Your task to perform on an android device: add a contact in the contacts app Image 0: 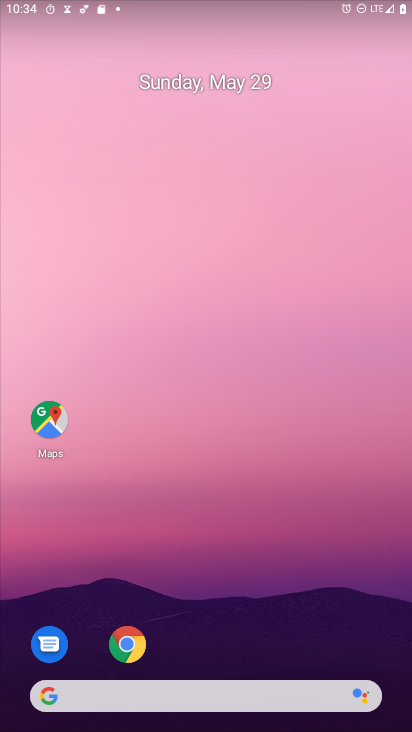
Step 0: drag from (116, 726) to (128, 23)
Your task to perform on an android device: add a contact in the contacts app Image 1: 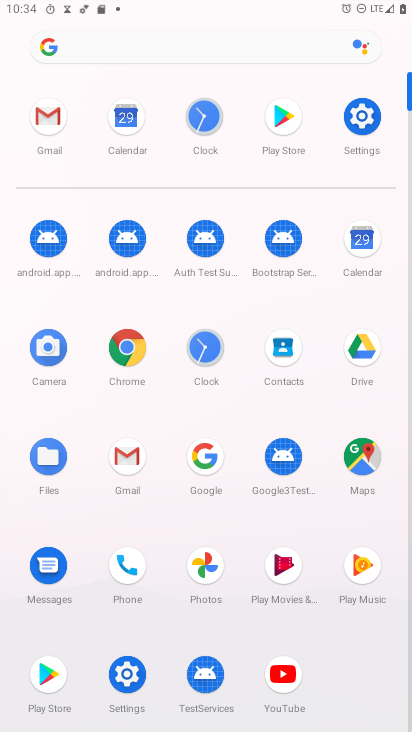
Step 1: click (278, 349)
Your task to perform on an android device: add a contact in the contacts app Image 2: 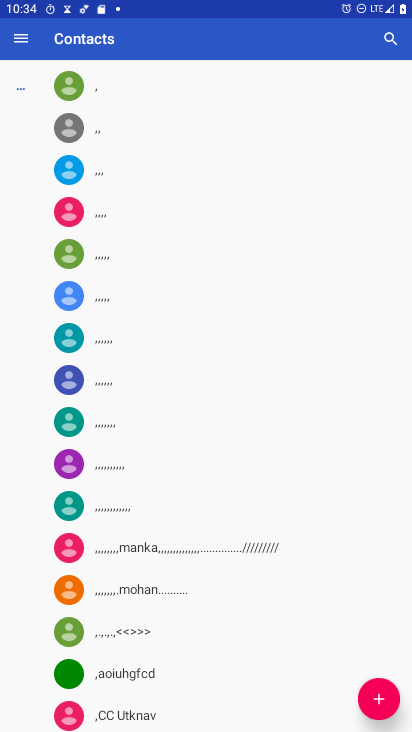
Step 2: click (370, 702)
Your task to perform on an android device: add a contact in the contacts app Image 3: 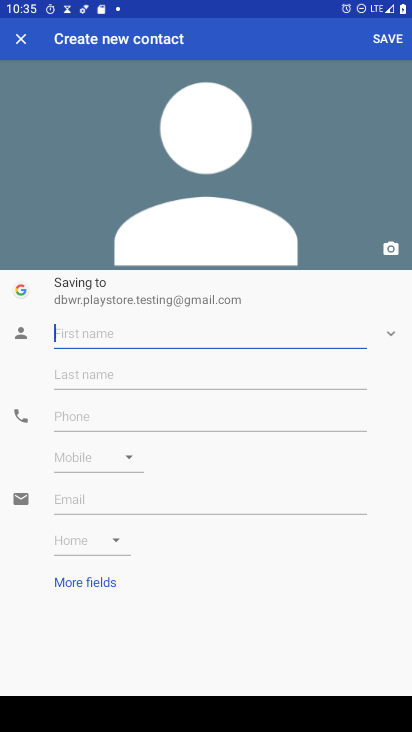
Step 3: type "hajhdj"
Your task to perform on an android device: add a contact in the contacts app Image 4: 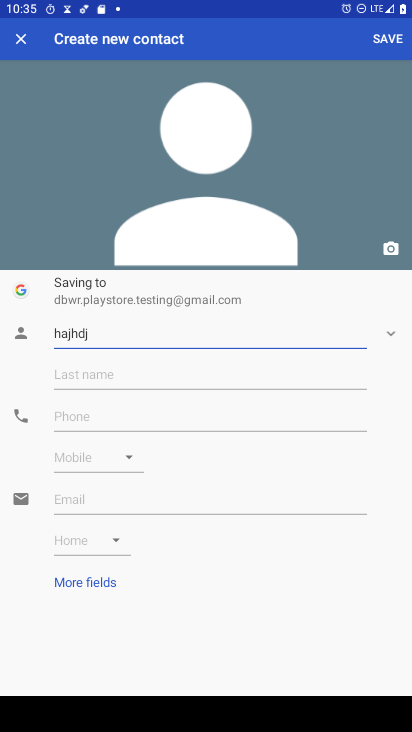
Step 4: click (101, 423)
Your task to perform on an android device: add a contact in the contacts app Image 5: 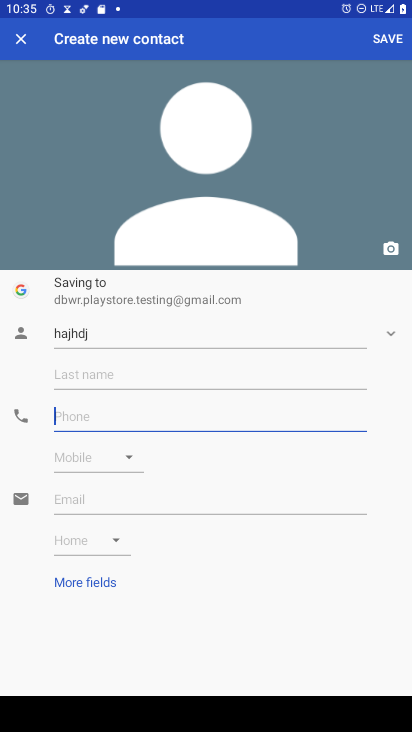
Step 5: type "98716253540"
Your task to perform on an android device: add a contact in the contacts app Image 6: 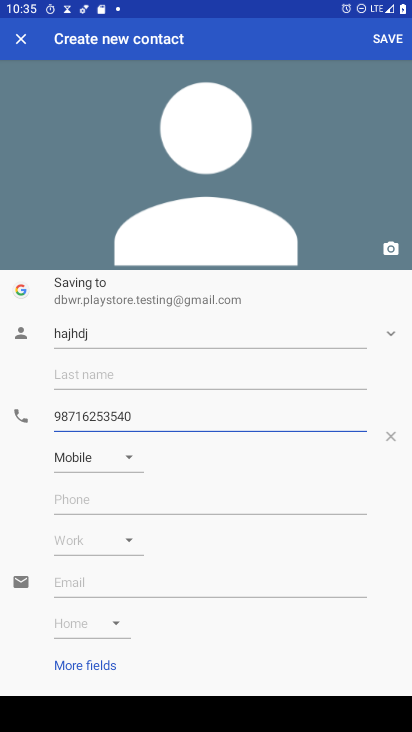
Step 6: click (389, 40)
Your task to perform on an android device: add a contact in the contacts app Image 7: 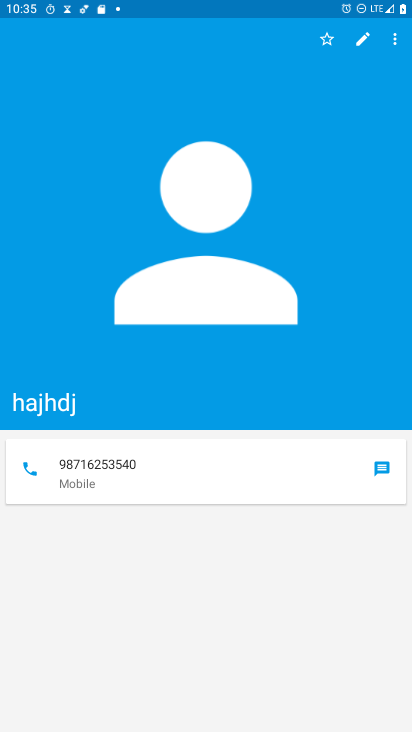
Step 7: task complete